Your task to perform on an android device: delete browsing data in the chrome app Image 0: 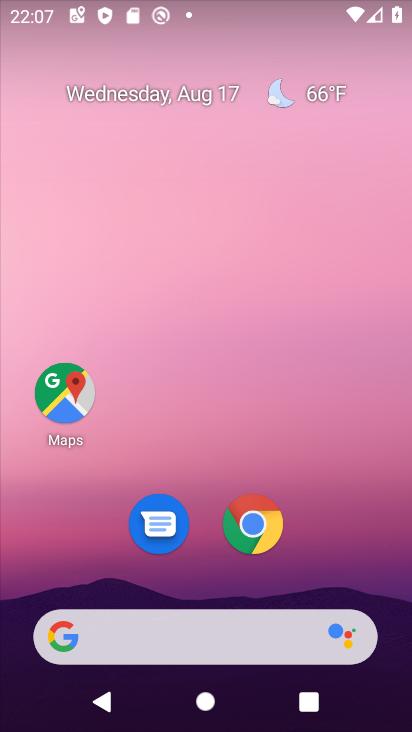
Step 0: click (251, 518)
Your task to perform on an android device: delete browsing data in the chrome app Image 1: 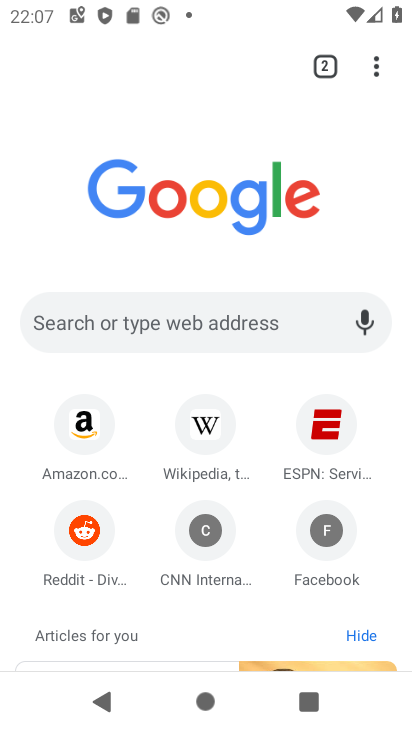
Step 1: click (378, 69)
Your task to perform on an android device: delete browsing data in the chrome app Image 2: 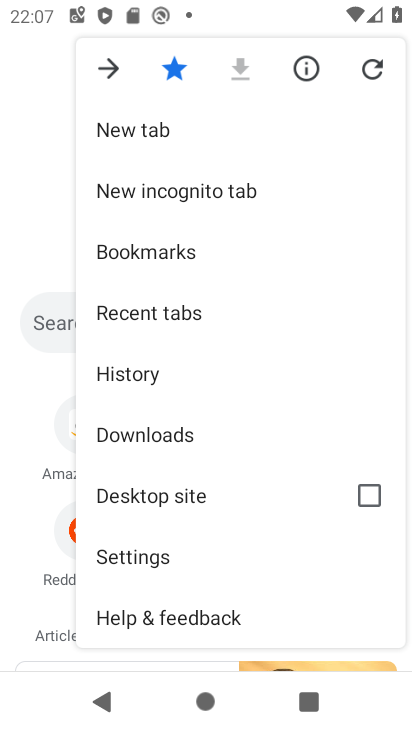
Step 2: click (140, 377)
Your task to perform on an android device: delete browsing data in the chrome app Image 3: 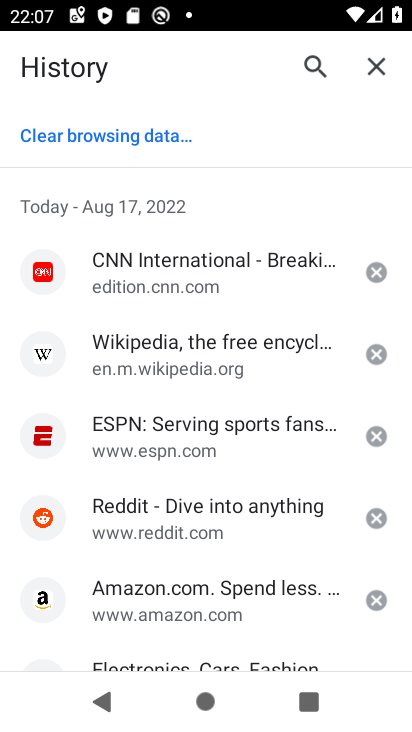
Step 3: click (118, 131)
Your task to perform on an android device: delete browsing data in the chrome app Image 4: 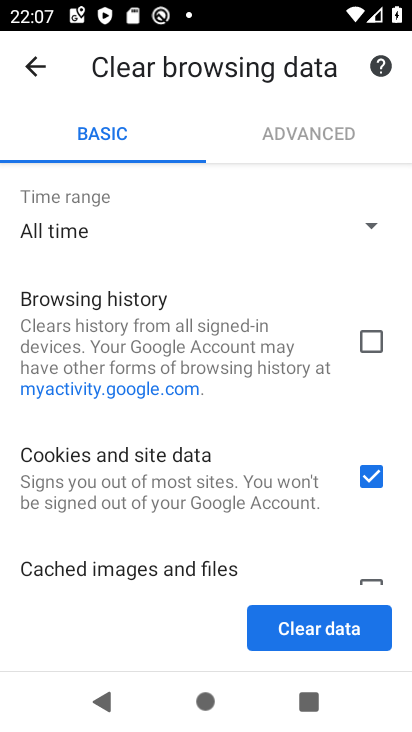
Step 4: click (374, 336)
Your task to perform on an android device: delete browsing data in the chrome app Image 5: 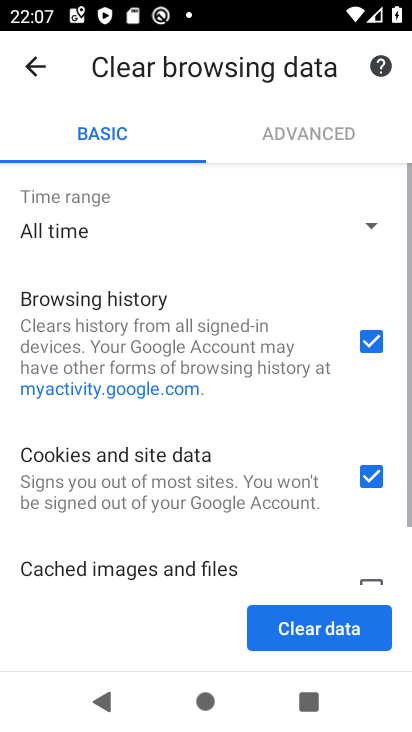
Step 5: drag from (244, 493) to (247, 244)
Your task to perform on an android device: delete browsing data in the chrome app Image 6: 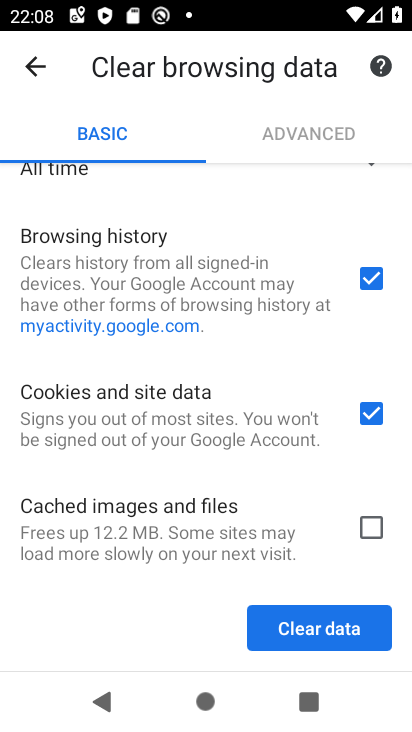
Step 6: click (375, 520)
Your task to perform on an android device: delete browsing data in the chrome app Image 7: 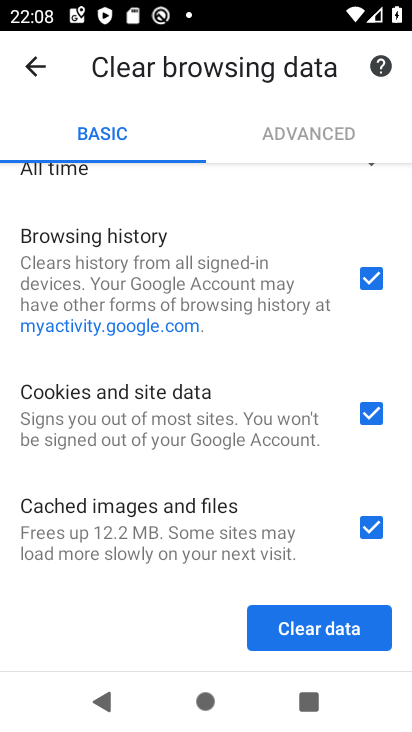
Step 7: click (339, 625)
Your task to perform on an android device: delete browsing data in the chrome app Image 8: 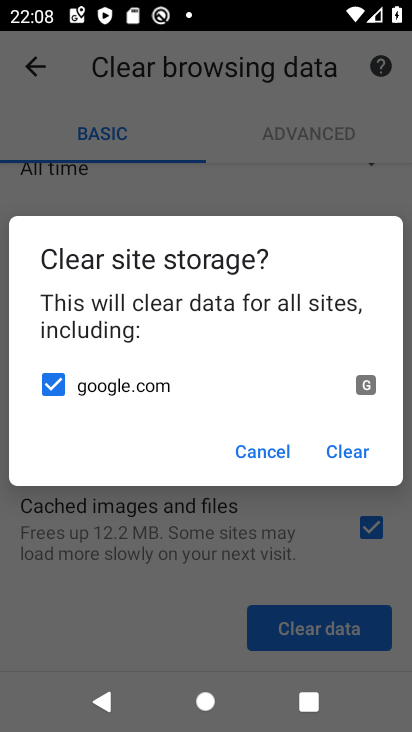
Step 8: click (352, 451)
Your task to perform on an android device: delete browsing data in the chrome app Image 9: 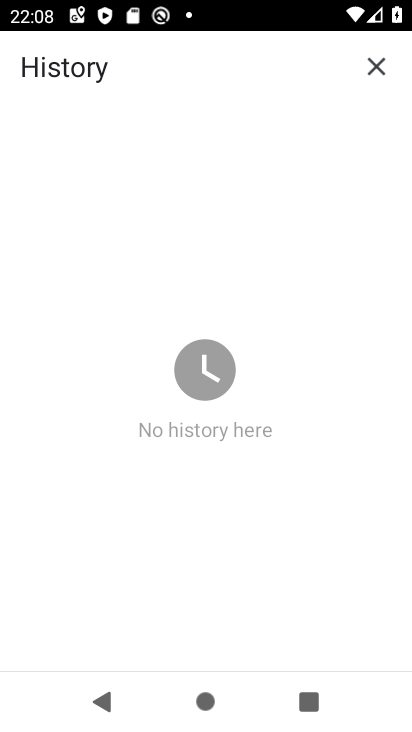
Step 9: task complete